Your task to perform on an android device: View the shopping cart on newegg. Search for "razer huntsman" on newegg, select the first entry, add it to the cart, then select checkout. Image 0: 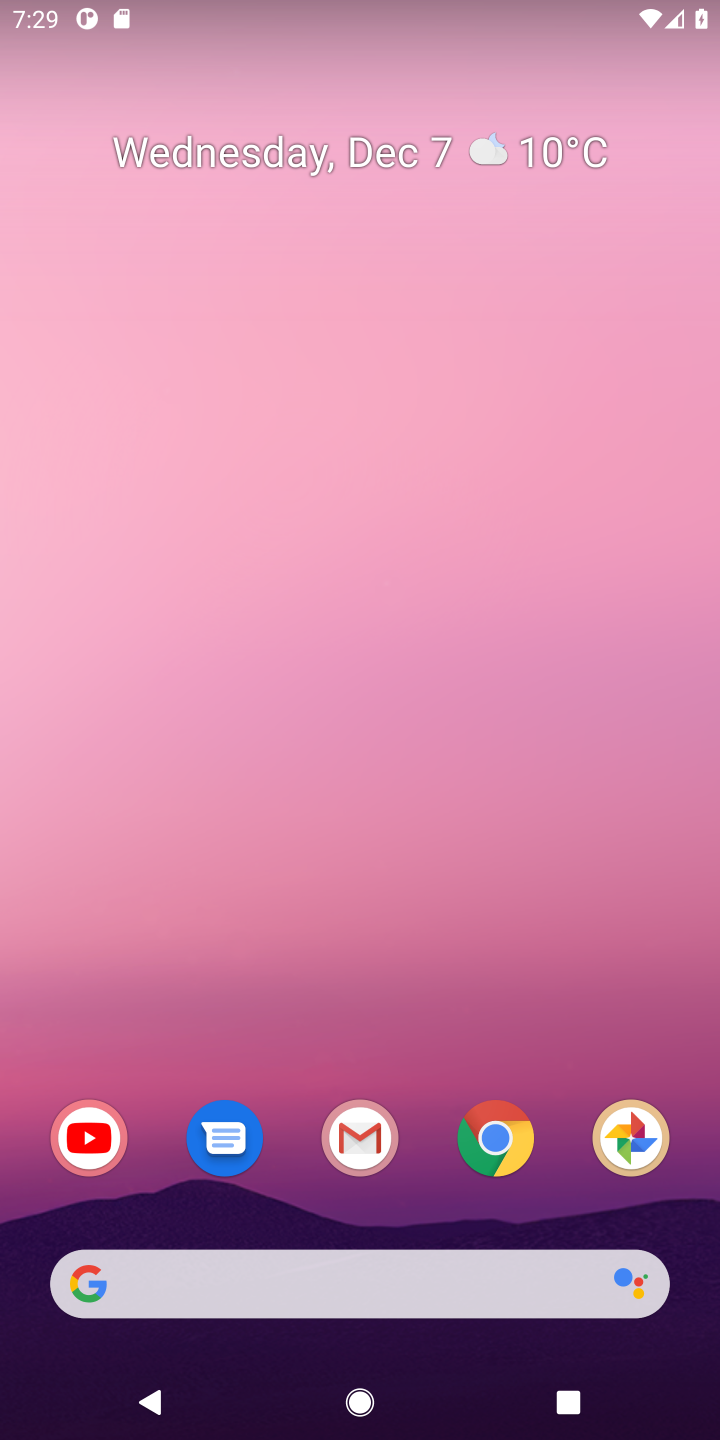
Step 0: press home button
Your task to perform on an android device: View the shopping cart on newegg. Search for "razer huntsman" on newegg, select the first entry, add it to the cart, then select checkout. Image 1: 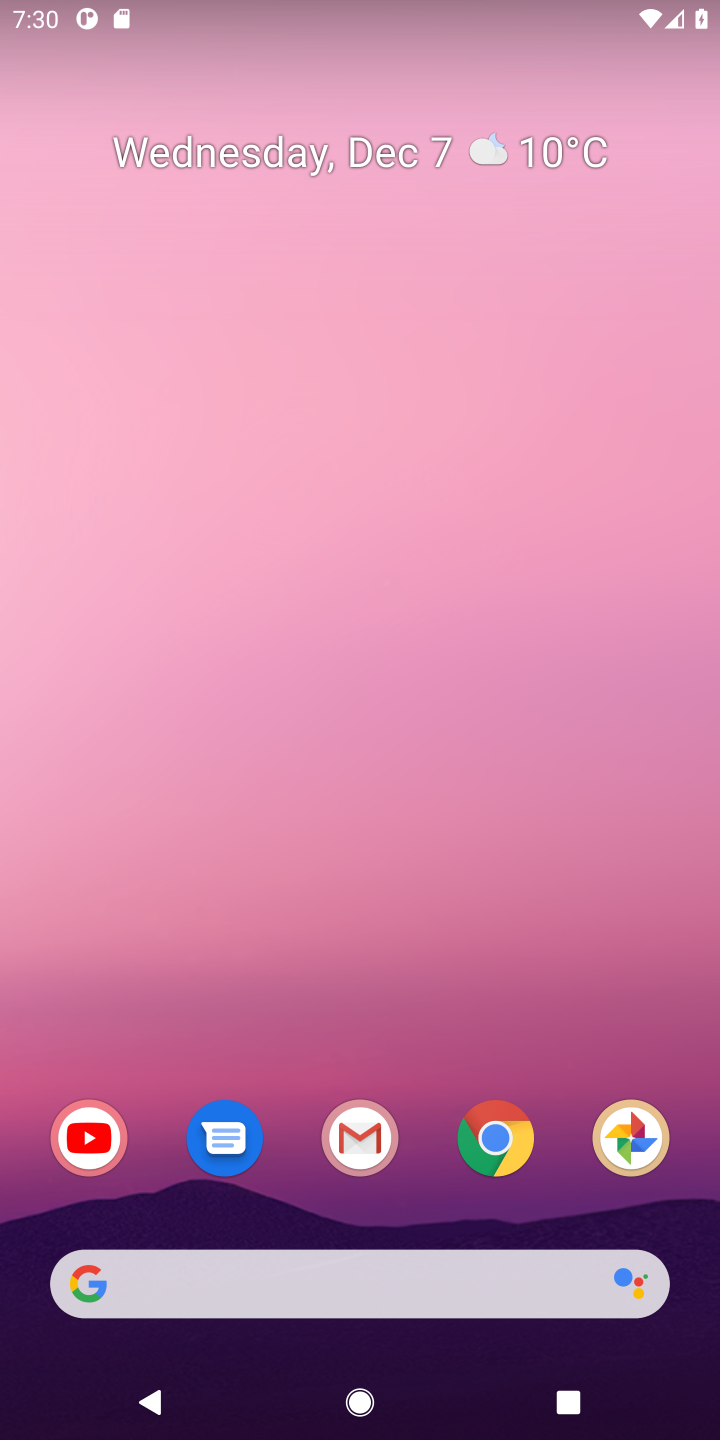
Step 1: click (185, 1283)
Your task to perform on an android device: View the shopping cart on newegg. Search for "razer huntsman" on newegg, select the first entry, add it to the cart, then select checkout. Image 2: 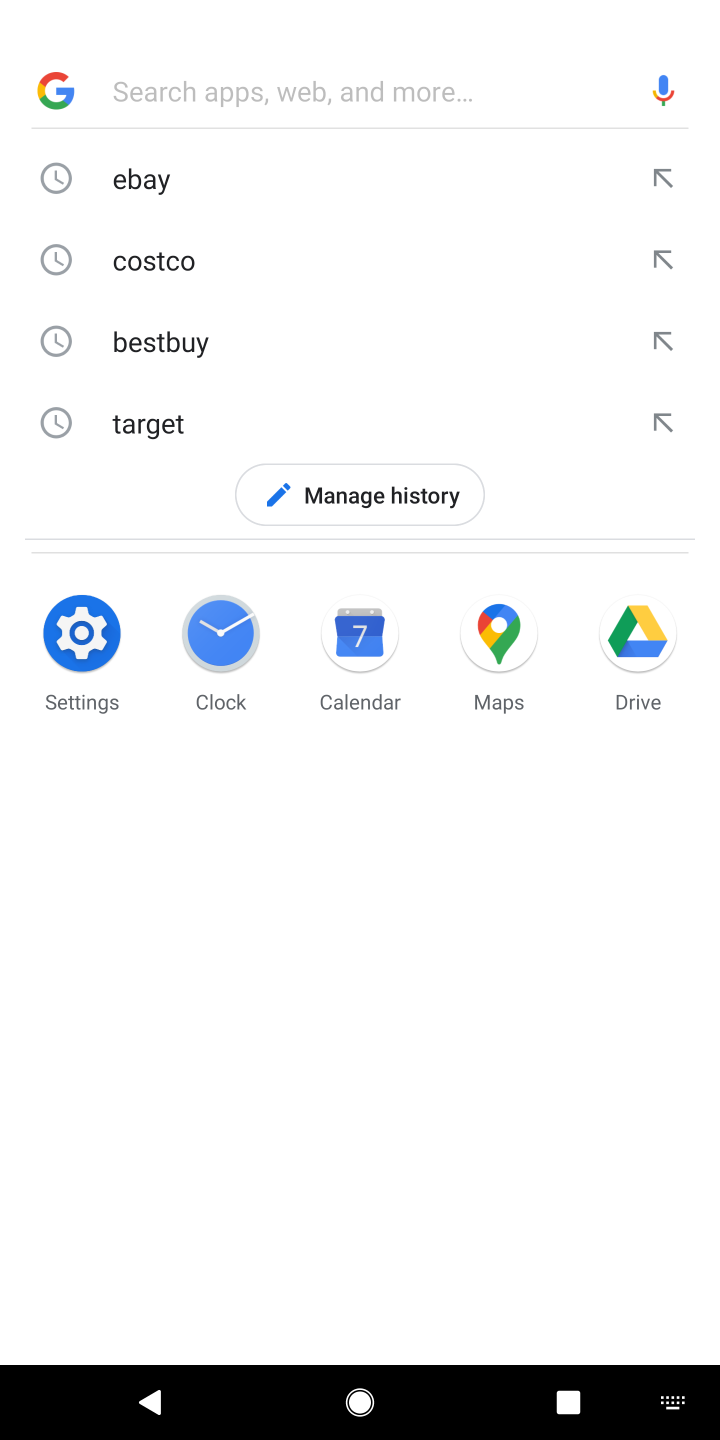
Step 2: type "newegg"
Your task to perform on an android device: View the shopping cart on newegg. Search for "razer huntsman" on newegg, select the first entry, add it to the cart, then select checkout. Image 3: 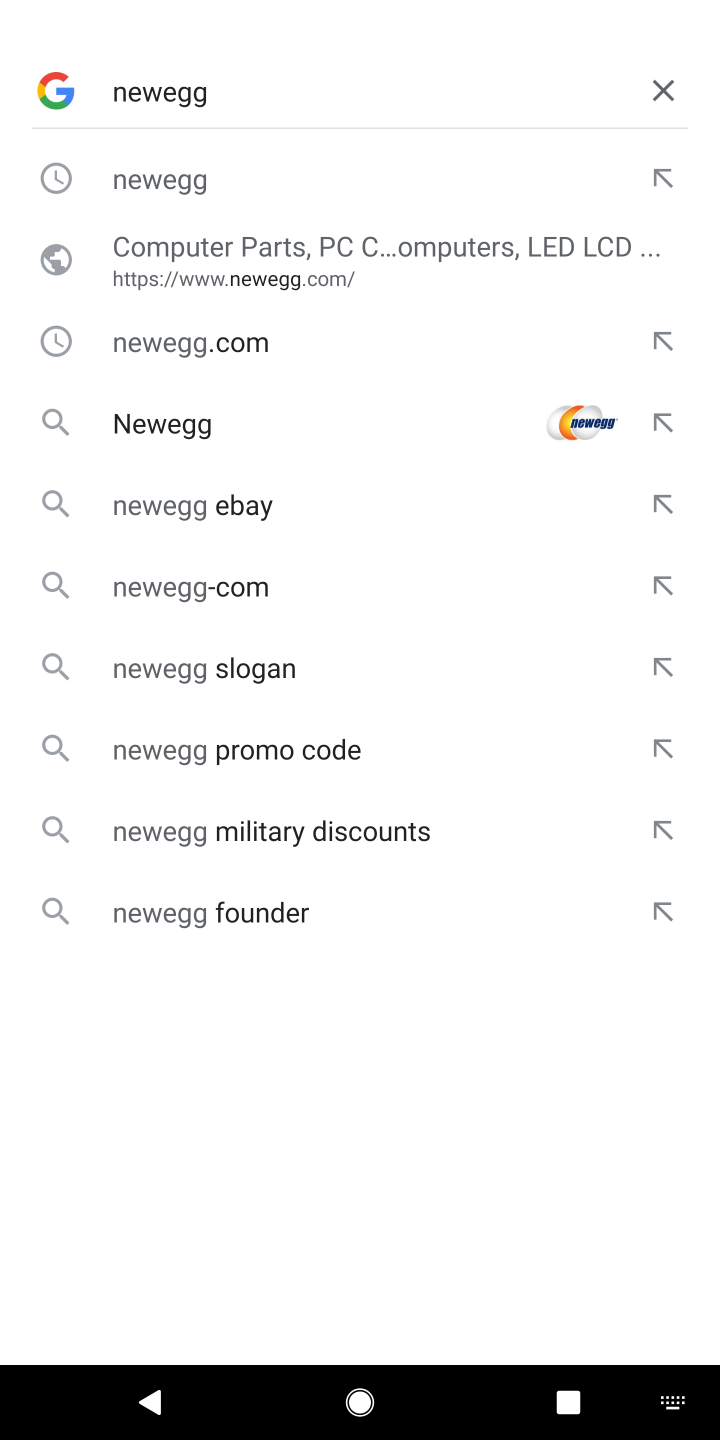
Step 3: press enter
Your task to perform on an android device: View the shopping cart on newegg. Search for "razer huntsman" on newegg, select the first entry, add it to the cart, then select checkout. Image 4: 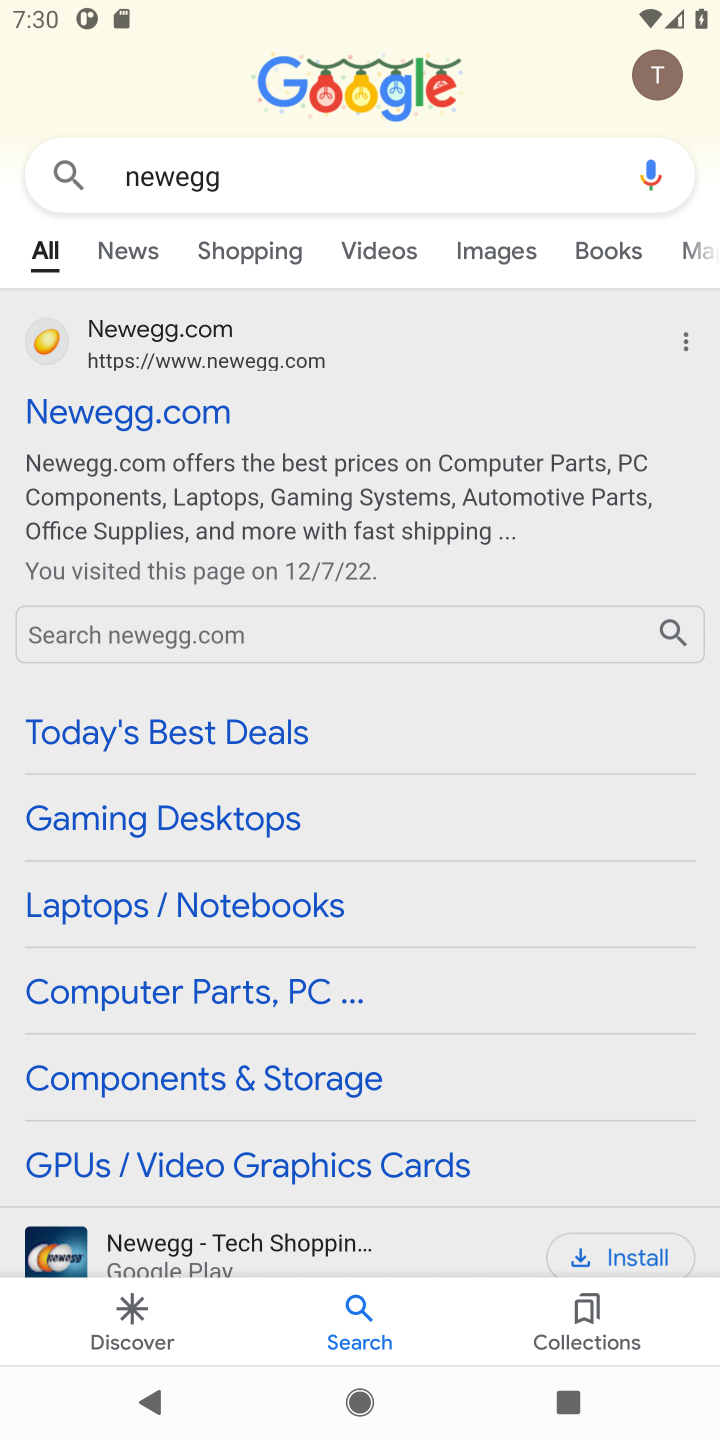
Step 4: click (91, 411)
Your task to perform on an android device: View the shopping cart on newegg. Search for "razer huntsman" on newegg, select the first entry, add it to the cart, then select checkout. Image 5: 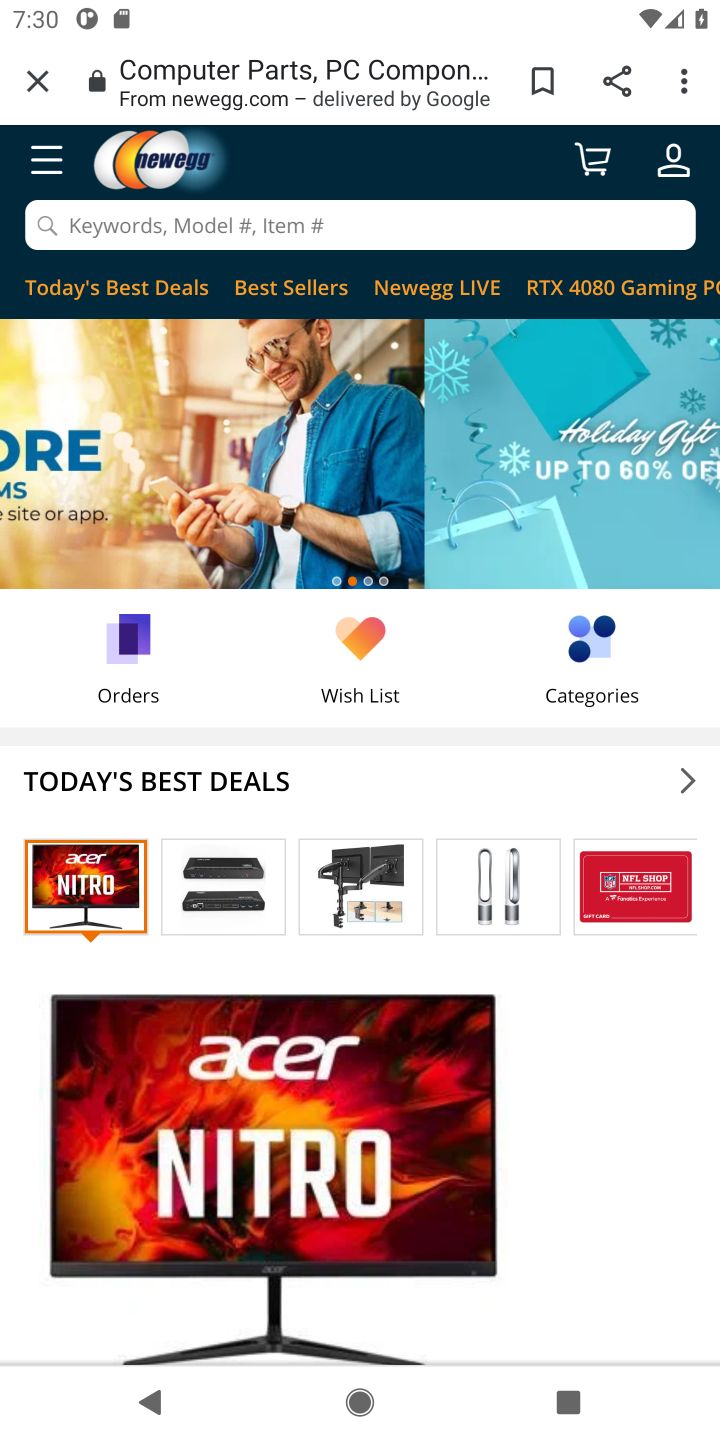
Step 5: click (587, 166)
Your task to perform on an android device: View the shopping cart on newegg. Search for "razer huntsman" on newegg, select the first entry, add it to the cart, then select checkout. Image 6: 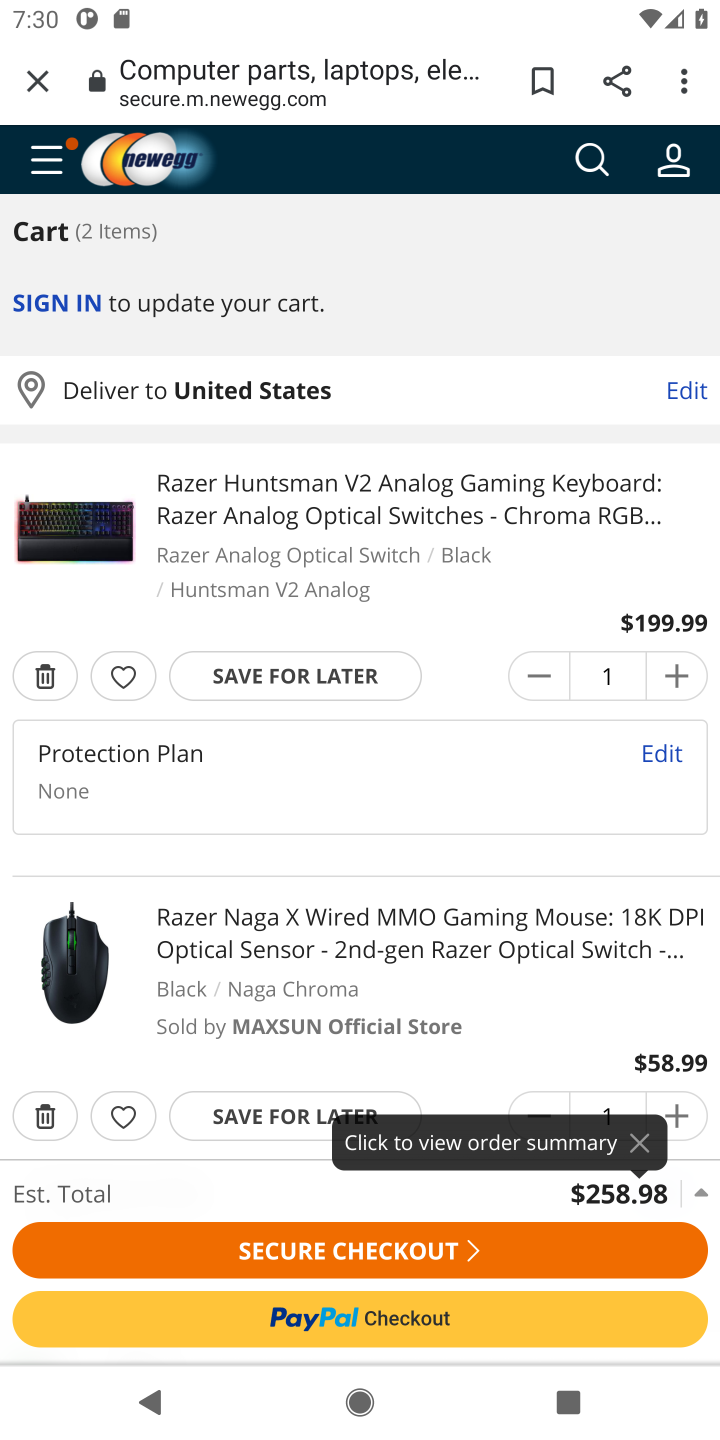
Step 6: click (595, 160)
Your task to perform on an android device: View the shopping cart on newegg. Search for "razer huntsman" on newegg, select the first entry, add it to the cart, then select checkout. Image 7: 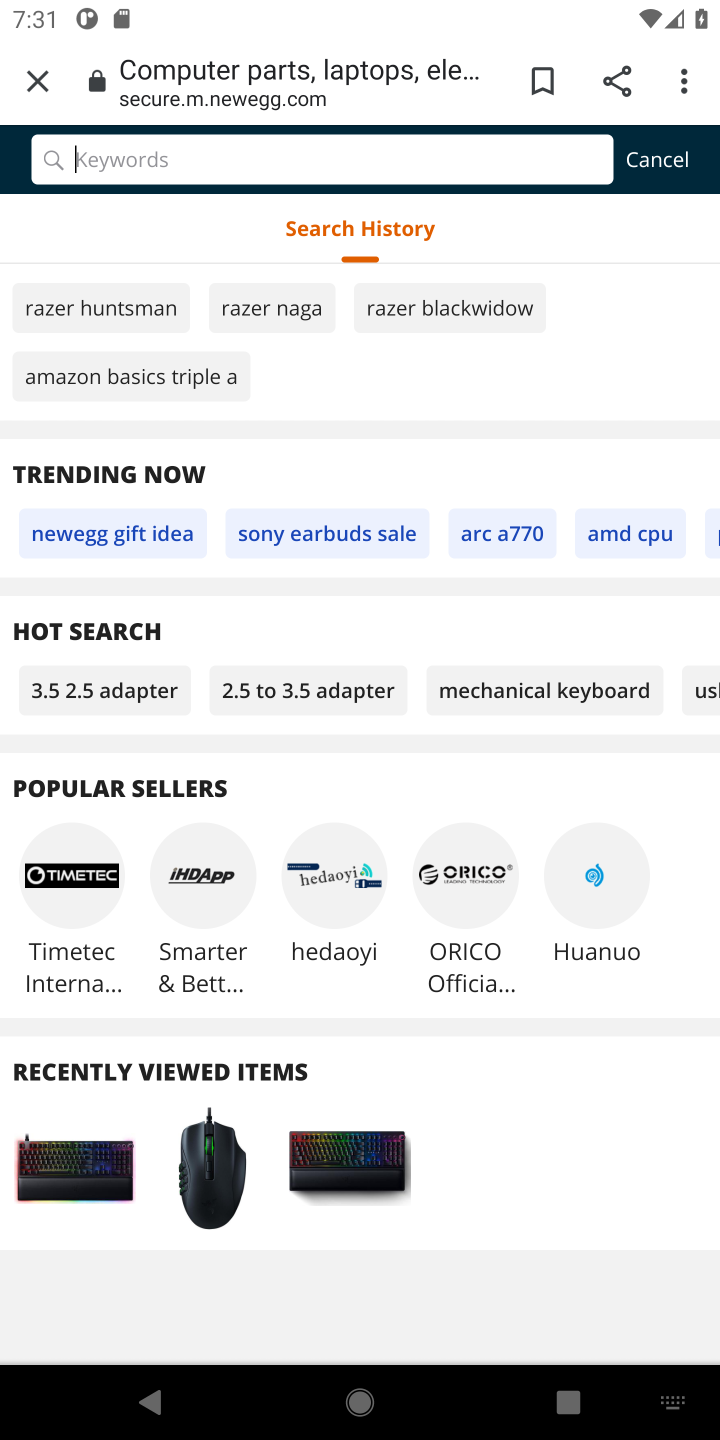
Step 7: type "razer huntsman"
Your task to perform on an android device: View the shopping cart on newegg. Search for "razer huntsman" on newegg, select the first entry, add it to the cart, then select checkout. Image 8: 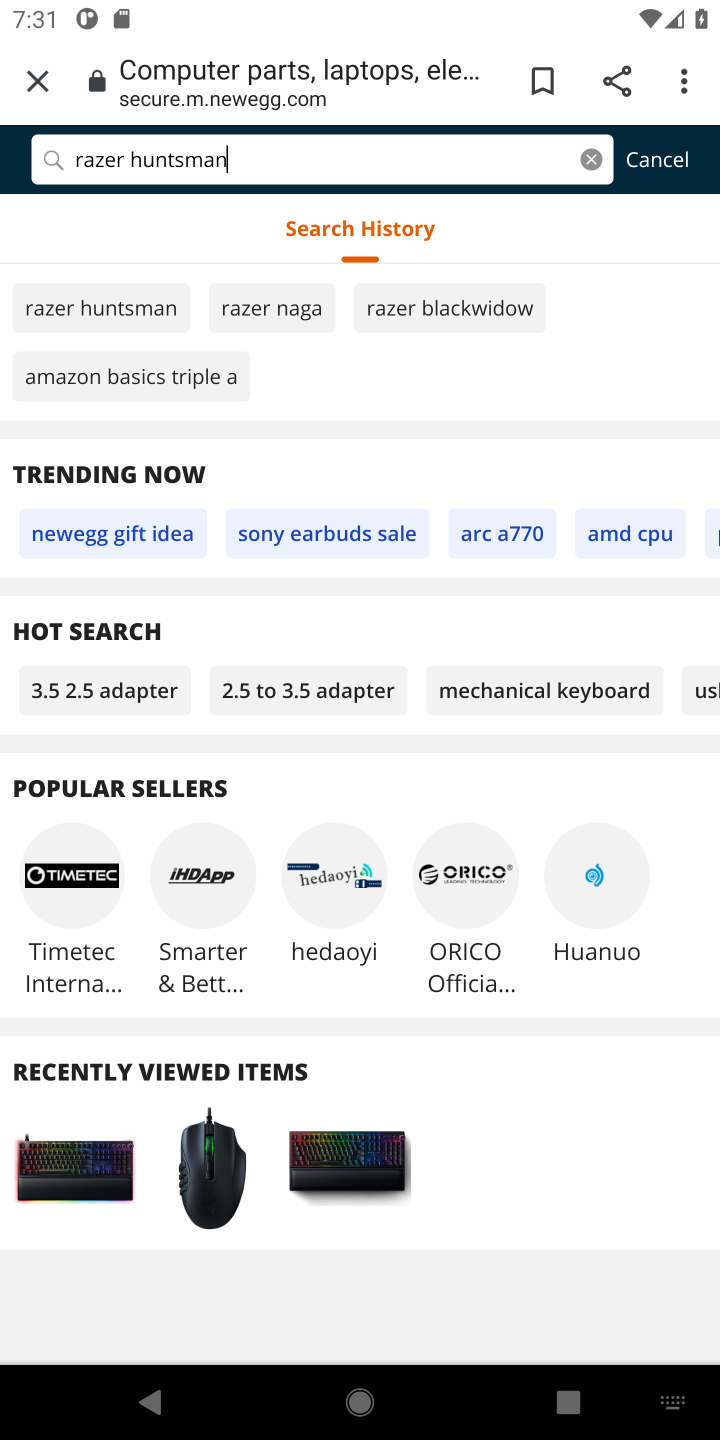
Step 8: press enter
Your task to perform on an android device: View the shopping cart on newegg. Search for "razer huntsman" on newegg, select the first entry, add it to the cart, then select checkout. Image 9: 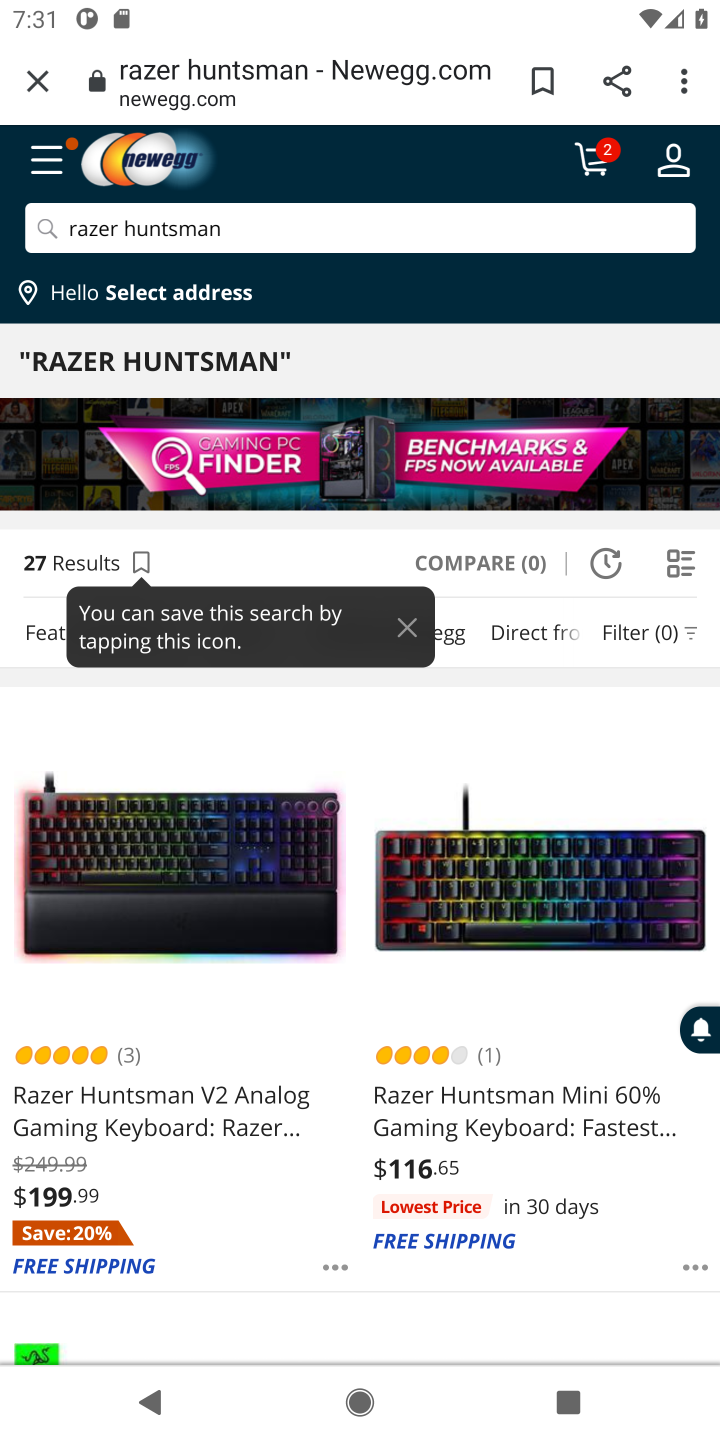
Step 9: click (203, 1104)
Your task to perform on an android device: View the shopping cart on newegg. Search for "razer huntsman" on newegg, select the first entry, add it to the cart, then select checkout. Image 10: 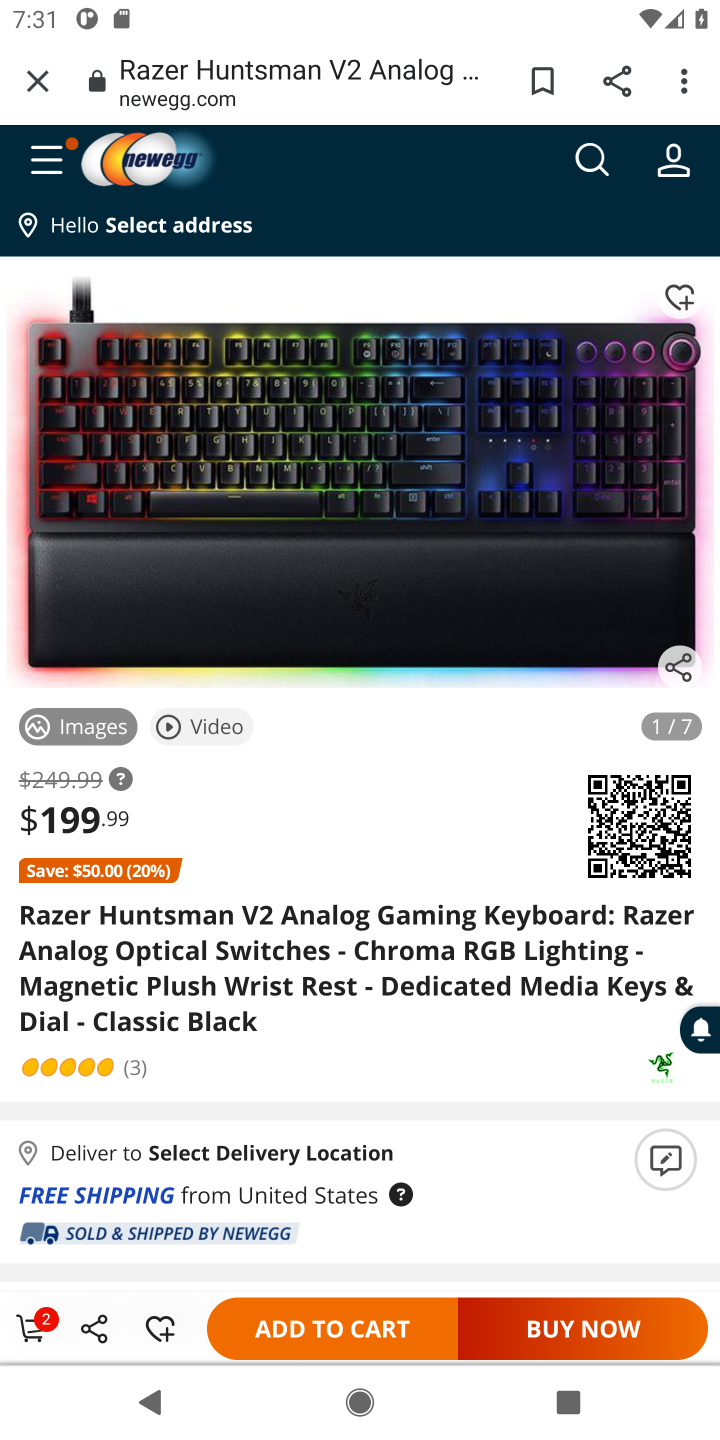
Step 10: click (300, 1340)
Your task to perform on an android device: View the shopping cart on newegg. Search for "razer huntsman" on newegg, select the first entry, add it to the cart, then select checkout. Image 11: 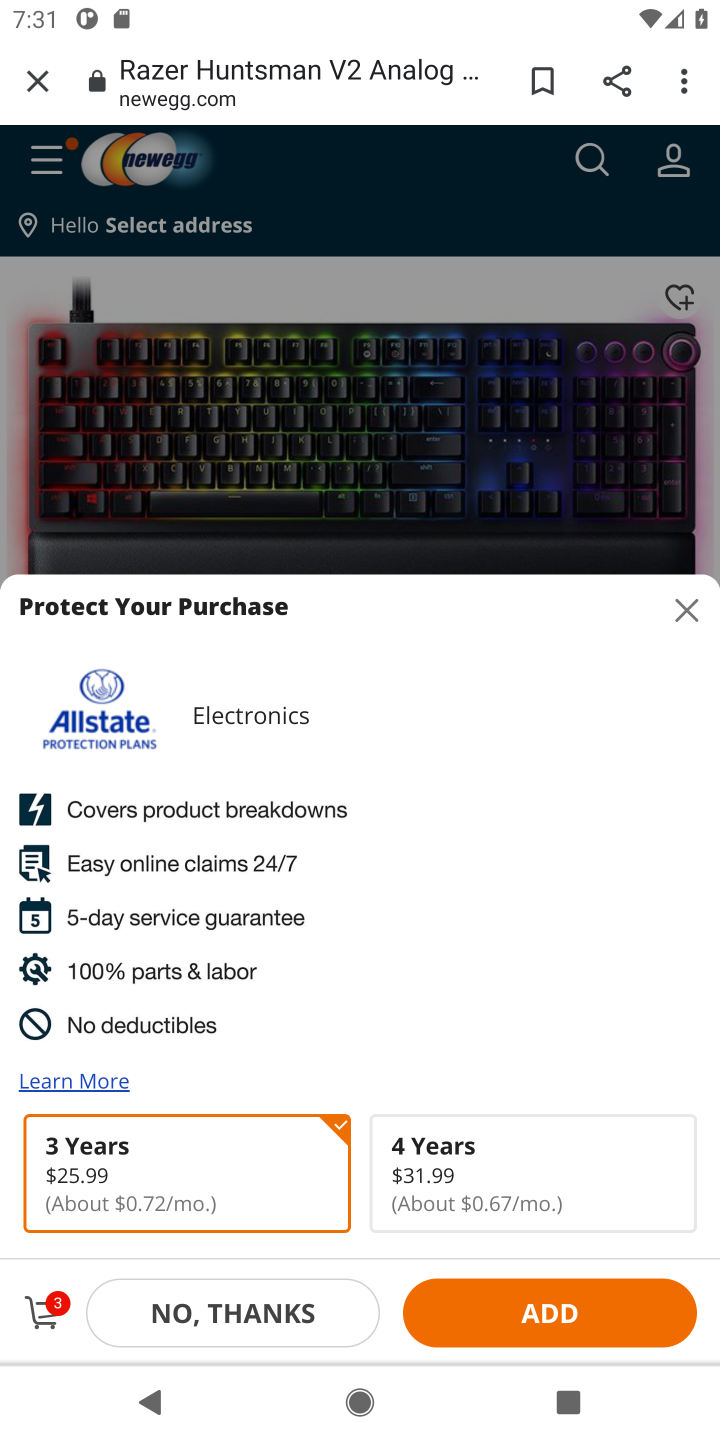
Step 11: click (245, 1321)
Your task to perform on an android device: View the shopping cart on newegg. Search for "razer huntsman" on newegg, select the first entry, add it to the cart, then select checkout. Image 12: 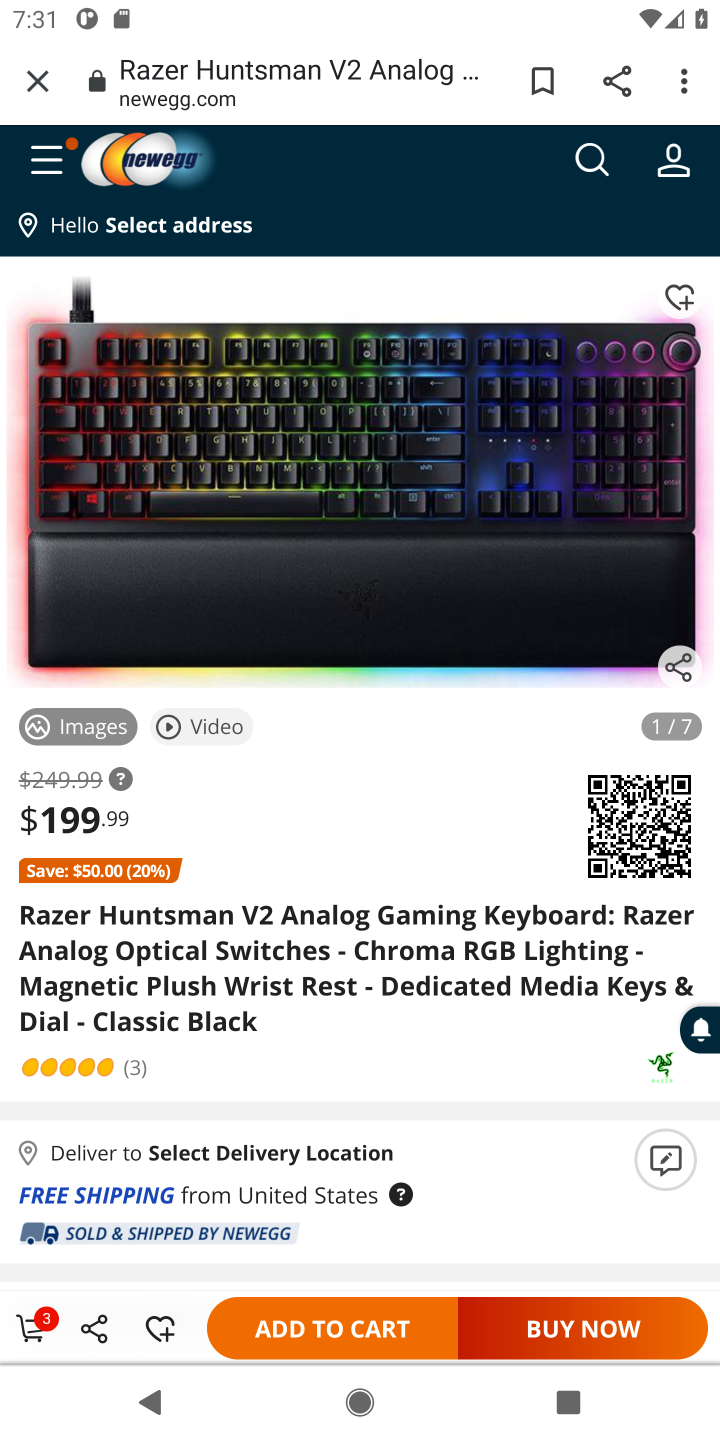
Step 12: task complete